Your task to perform on an android device: turn off wifi Image 0: 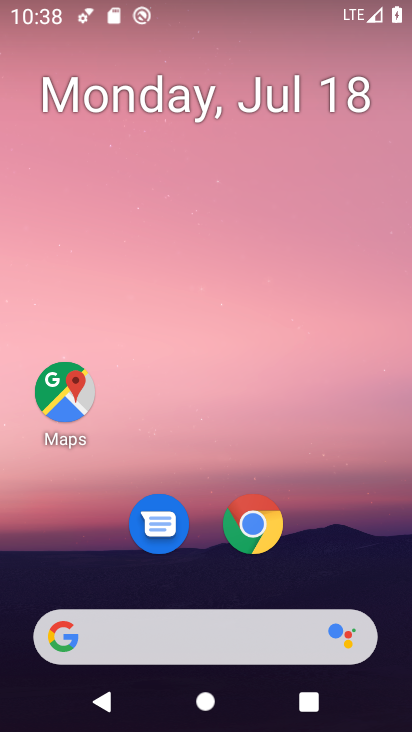
Step 0: drag from (343, 541) to (347, 20)
Your task to perform on an android device: turn off wifi Image 1: 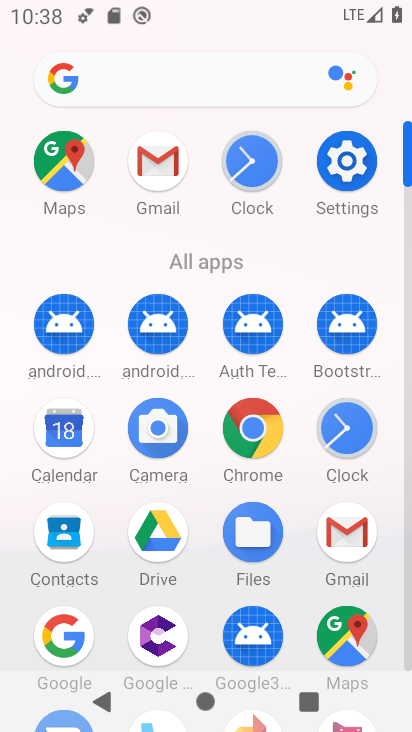
Step 1: click (348, 160)
Your task to perform on an android device: turn off wifi Image 2: 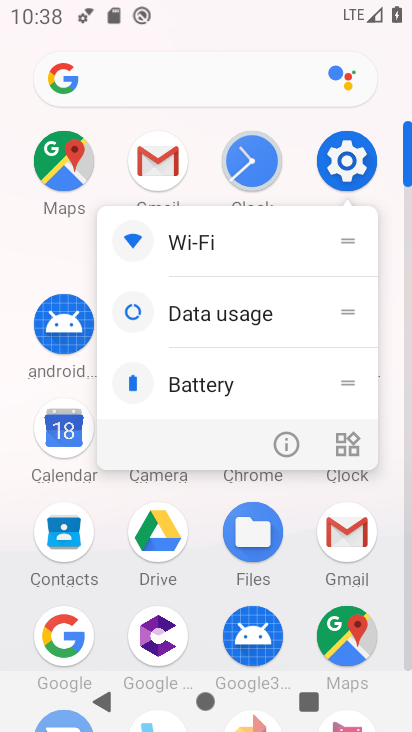
Step 2: click (350, 162)
Your task to perform on an android device: turn off wifi Image 3: 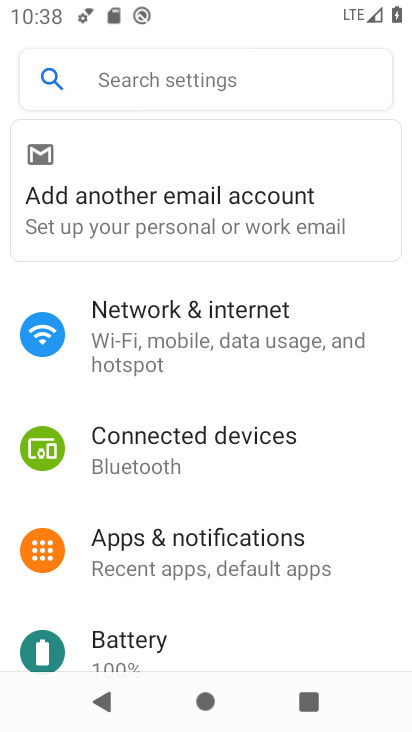
Step 3: click (223, 311)
Your task to perform on an android device: turn off wifi Image 4: 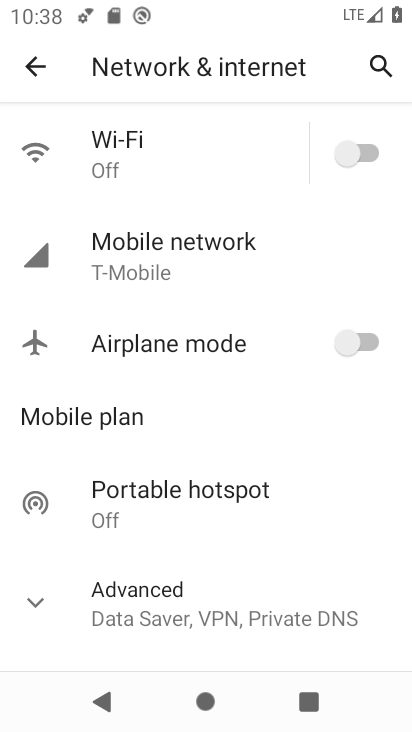
Step 4: task complete